Your task to perform on an android device: check android version Image 0: 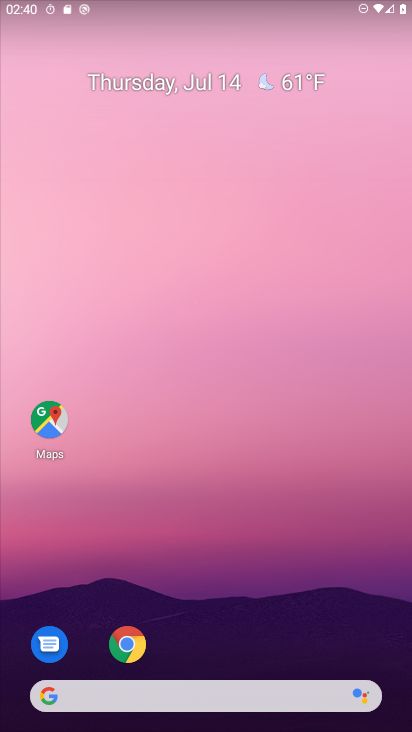
Step 0: drag from (258, 614) to (221, 13)
Your task to perform on an android device: check android version Image 1: 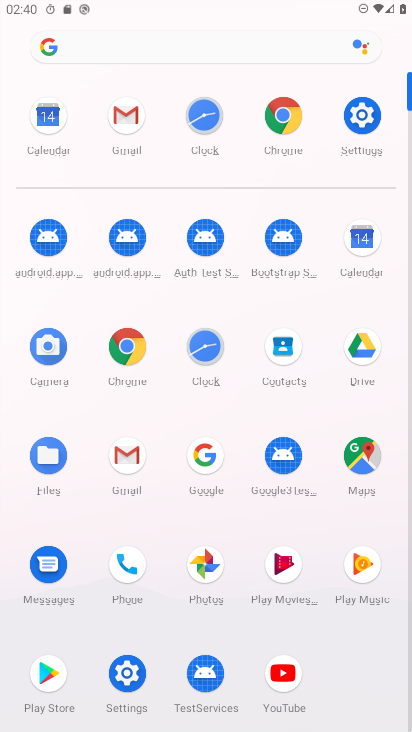
Step 1: click (348, 115)
Your task to perform on an android device: check android version Image 2: 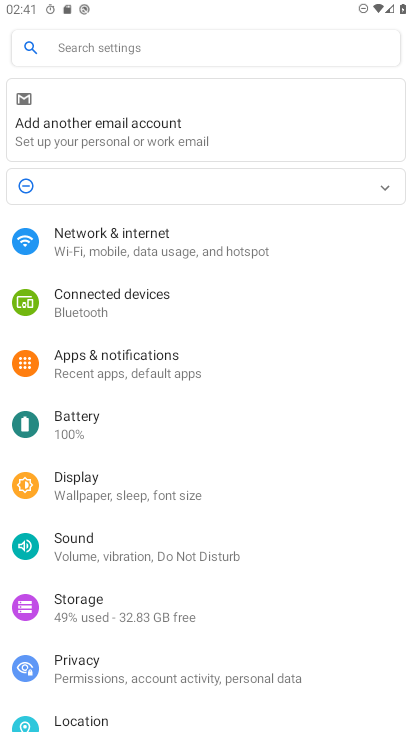
Step 2: drag from (181, 600) to (212, 7)
Your task to perform on an android device: check android version Image 3: 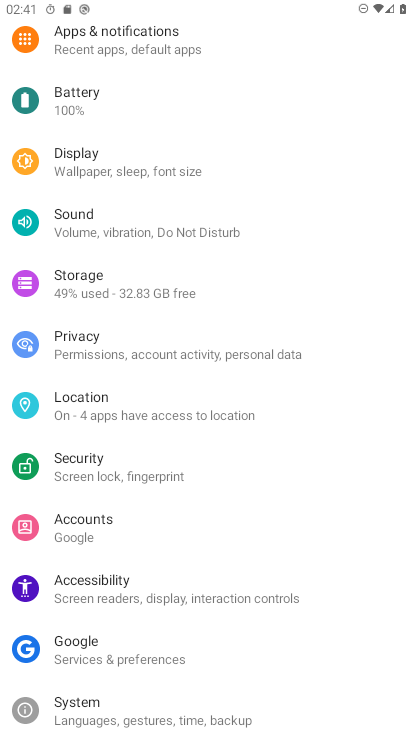
Step 3: drag from (167, 569) to (222, 45)
Your task to perform on an android device: check android version Image 4: 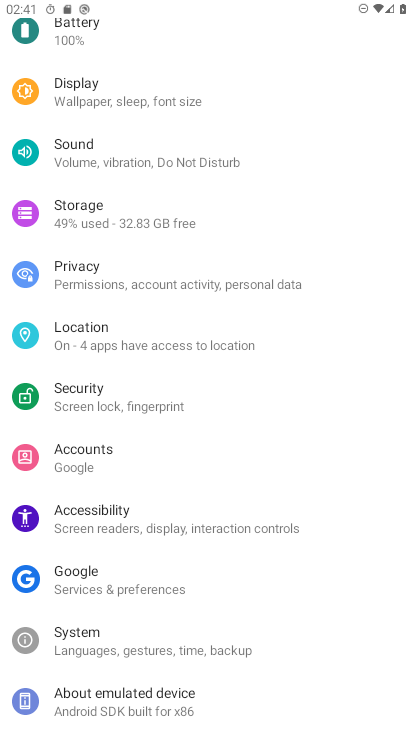
Step 4: click (125, 698)
Your task to perform on an android device: check android version Image 5: 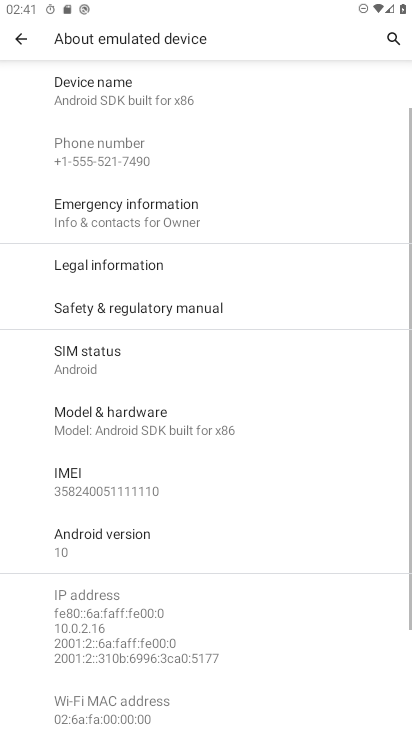
Step 5: click (110, 526)
Your task to perform on an android device: check android version Image 6: 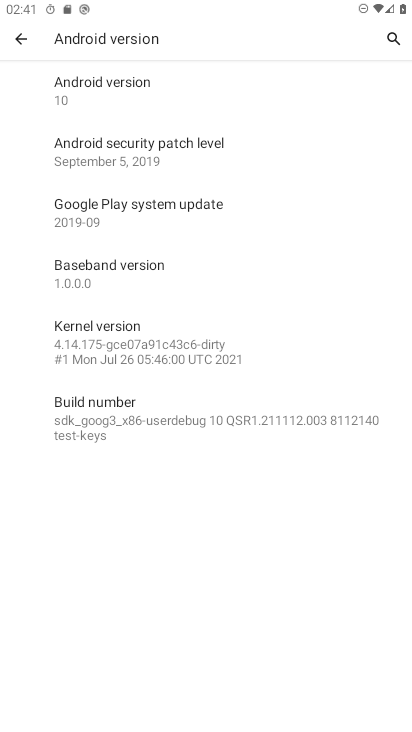
Step 6: task complete